Your task to perform on an android device: turn off javascript in the chrome app Image 0: 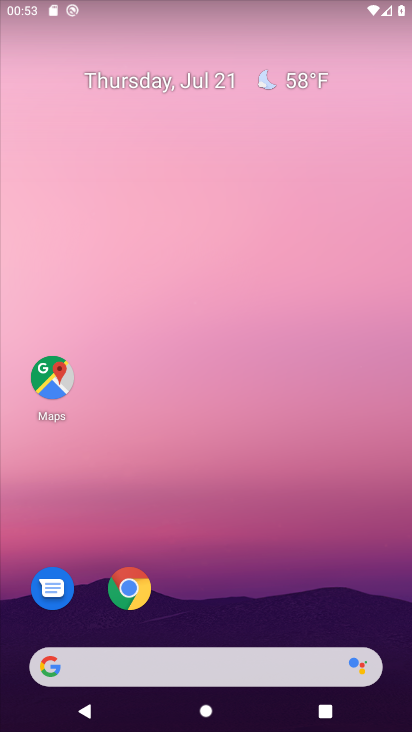
Step 0: click (133, 578)
Your task to perform on an android device: turn off javascript in the chrome app Image 1: 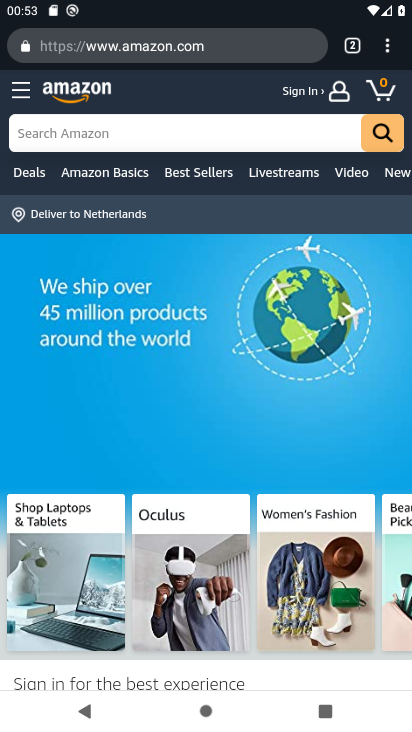
Step 1: click (381, 44)
Your task to perform on an android device: turn off javascript in the chrome app Image 2: 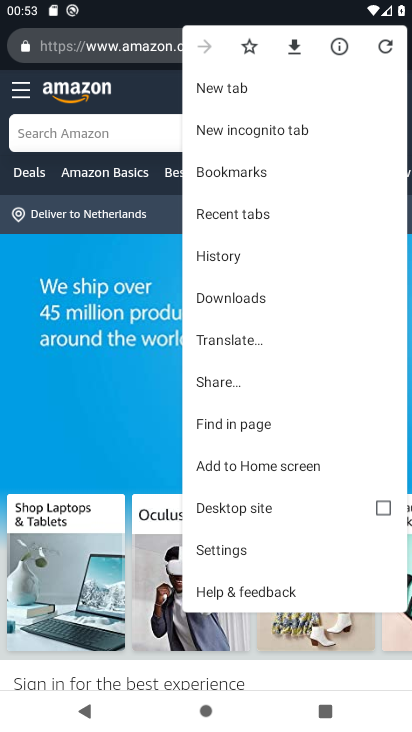
Step 2: click (226, 549)
Your task to perform on an android device: turn off javascript in the chrome app Image 3: 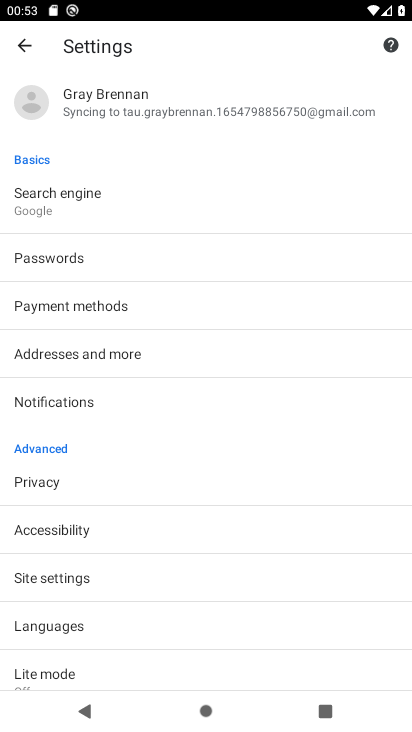
Step 3: click (59, 573)
Your task to perform on an android device: turn off javascript in the chrome app Image 4: 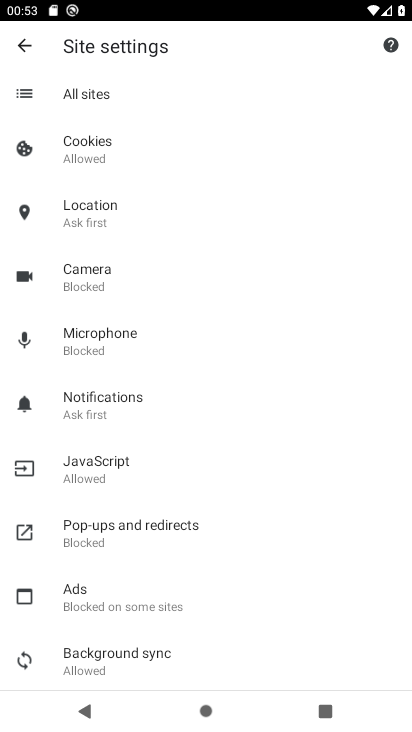
Step 4: click (92, 470)
Your task to perform on an android device: turn off javascript in the chrome app Image 5: 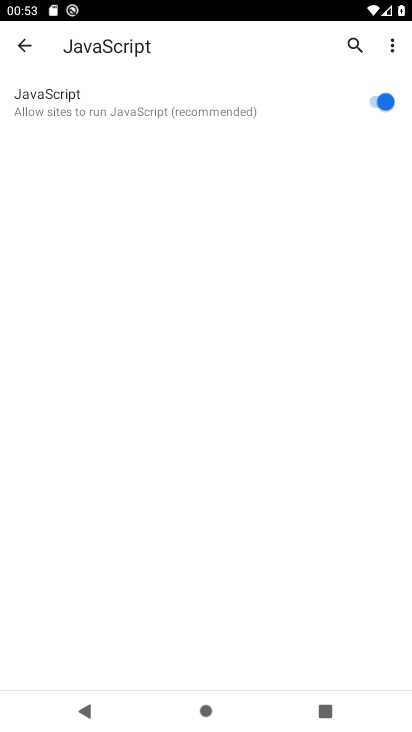
Step 5: click (360, 96)
Your task to perform on an android device: turn off javascript in the chrome app Image 6: 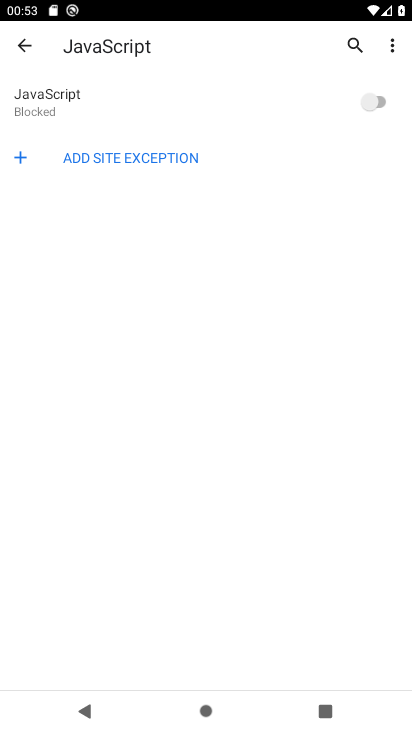
Step 6: task complete